Your task to perform on an android device: check storage Image 0: 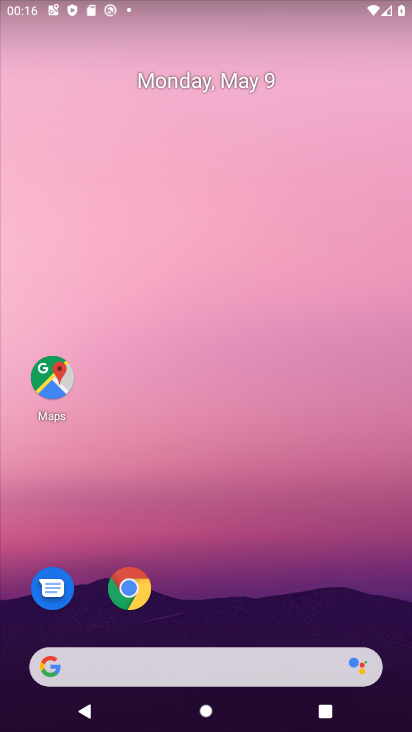
Step 0: drag from (267, 587) to (131, 24)
Your task to perform on an android device: check storage Image 1: 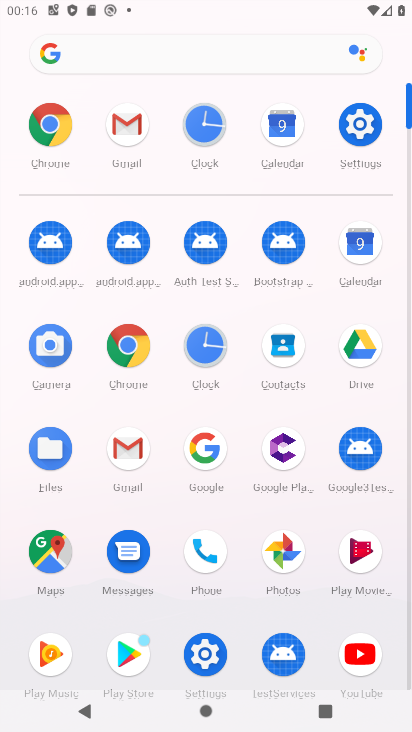
Step 1: click (363, 120)
Your task to perform on an android device: check storage Image 2: 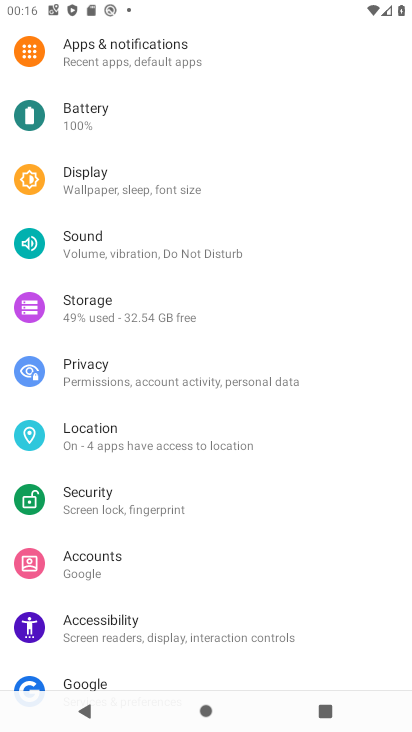
Step 2: click (86, 302)
Your task to perform on an android device: check storage Image 3: 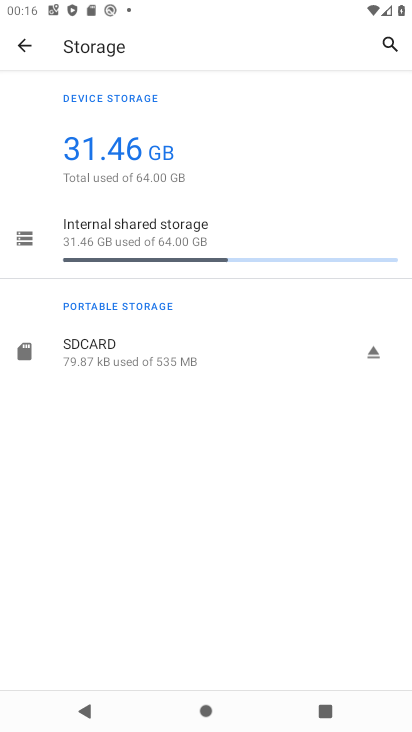
Step 3: task complete